Your task to perform on an android device: turn on showing notifications on the lock screen Image 0: 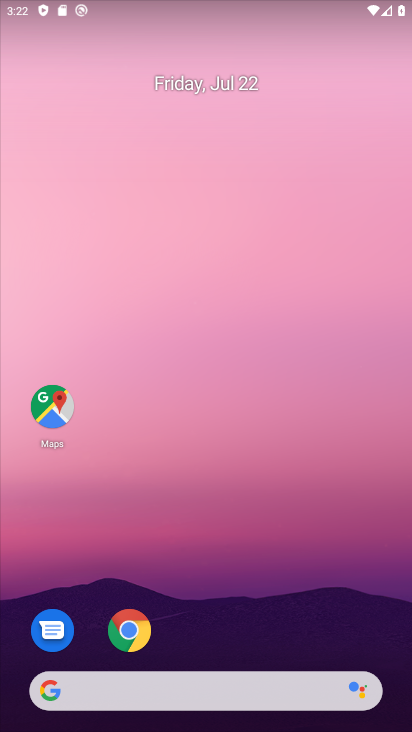
Step 0: drag from (212, 599) to (201, 118)
Your task to perform on an android device: turn on showing notifications on the lock screen Image 1: 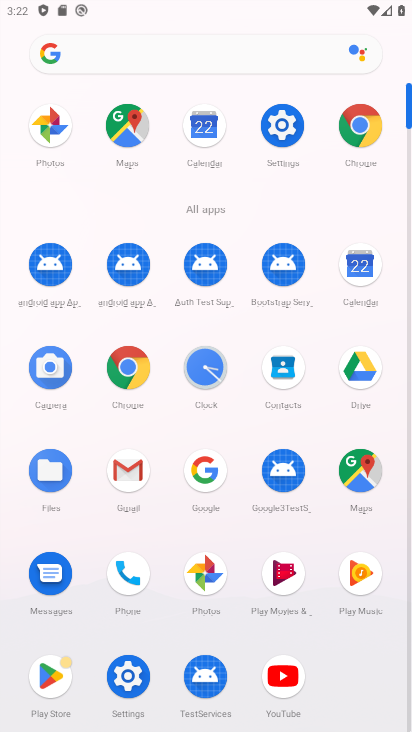
Step 1: click (127, 667)
Your task to perform on an android device: turn on showing notifications on the lock screen Image 2: 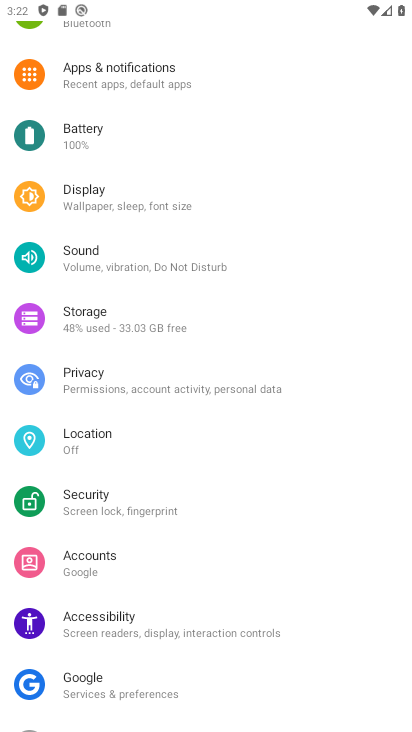
Step 2: click (159, 82)
Your task to perform on an android device: turn on showing notifications on the lock screen Image 3: 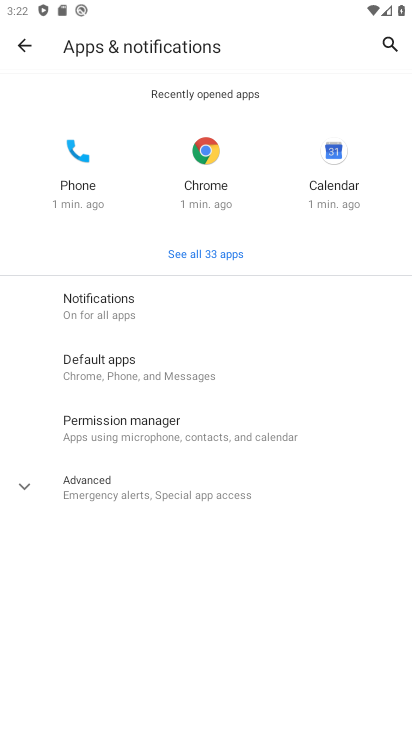
Step 3: click (111, 307)
Your task to perform on an android device: turn on showing notifications on the lock screen Image 4: 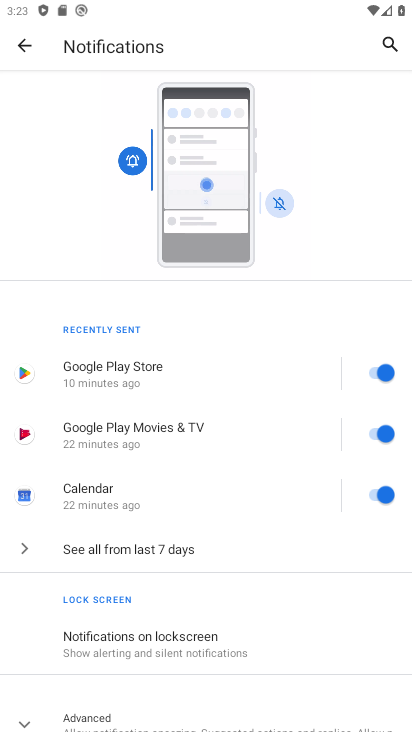
Step 4: click (168, 650)
Your task to perform on an android device: turn on showing notifications on the lock screen Image 5: 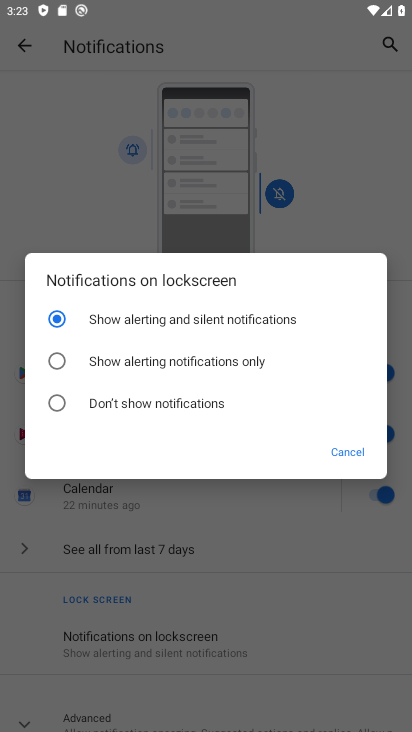
Step 5: task complete